Your task to perform on an android device: allow notifications from all sites in the chrome app Image 0: 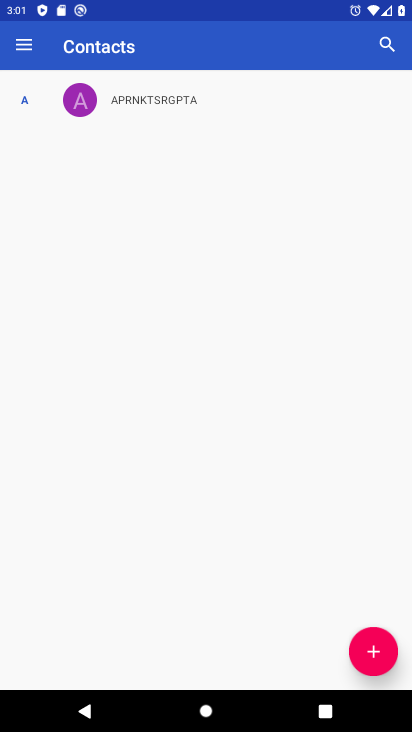
Step 0: press home button
Your task to perform on an android device: allow notifications from all sites in the chrome app Image 1: 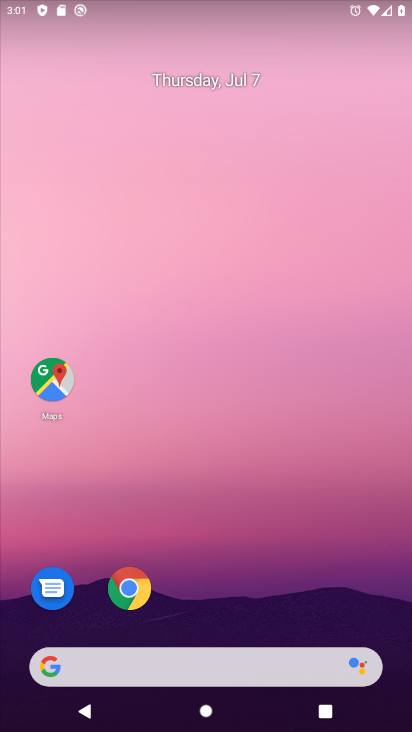
Step 1: click (135, 589)
Your task to perform on an android device: allow notifications from all sites in the chrome app Image 2: 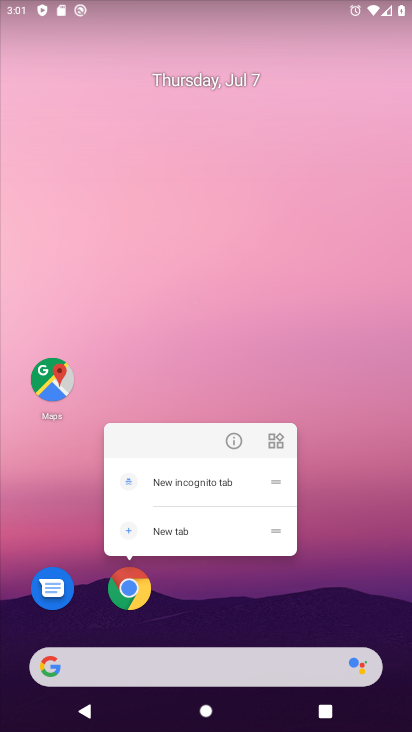
Step 2: click (136, 593)
Your task to perform on an android device: allow notifications from all sites in the chrome app Image 3: 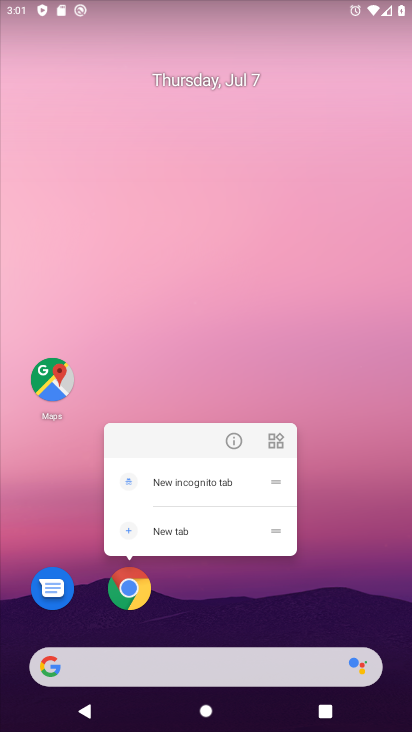
Step 3: click (127, 586)
Your task to perform on an android device: allow notifications from all sites in the chrome app Image 4: 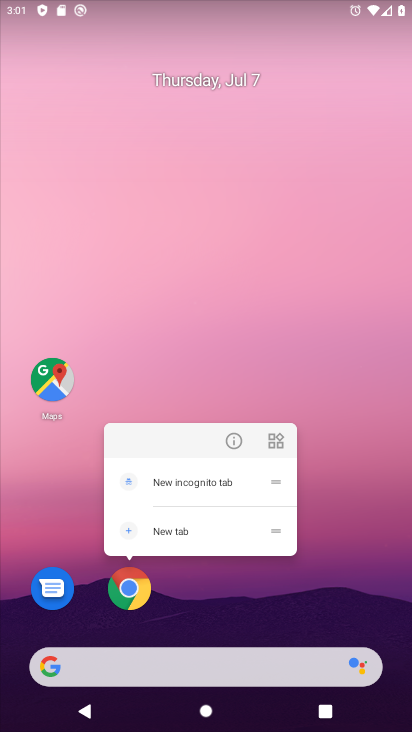
Step 4: click (127, 586)
Your task to perform on an android device: allow notifications from all sites in the chrome app Image 5: 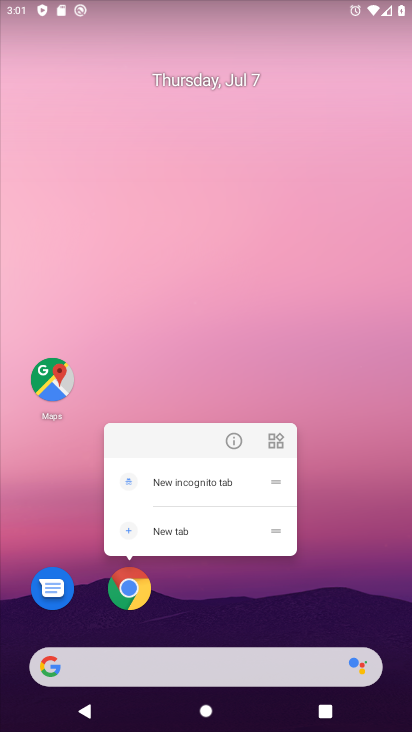
Step 5: click (131, 594)
Your task to perform on an android device: allow notifications from all sites in the chrome app Image 6: 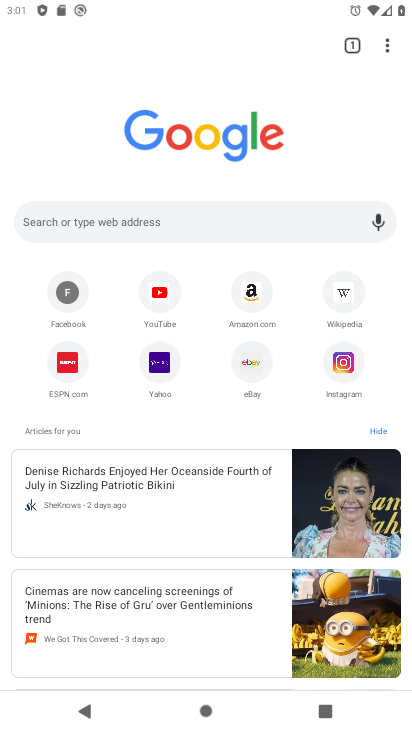
Step 6: click (389, 49)
Your task to perform on an android device: allow notifications from all sites in the chrome app Image 7: 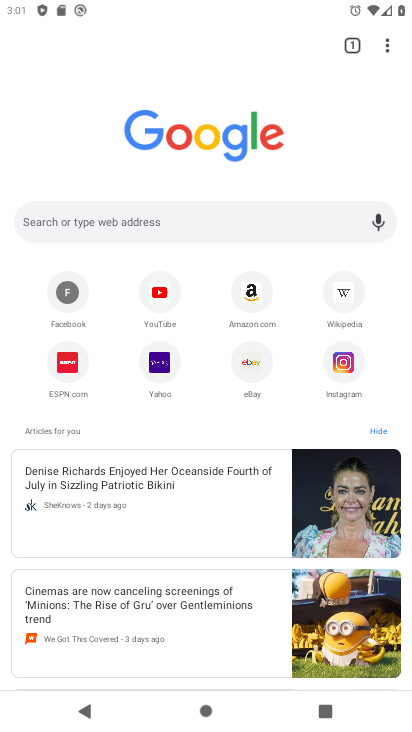
Step 7: click (385, 43)
Your task to perform on an android device: allow notifications from all sites in the chrome app Image 8: 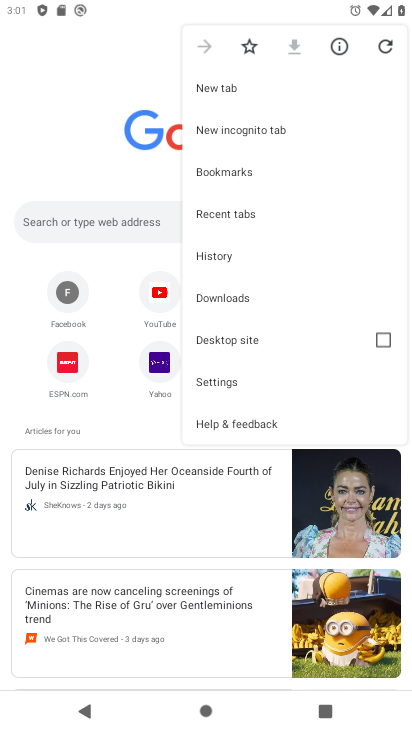
Step 8: click (212, 381)
Your task to perform on an android device: allow notifications from all sites in the chrome app Image 9: 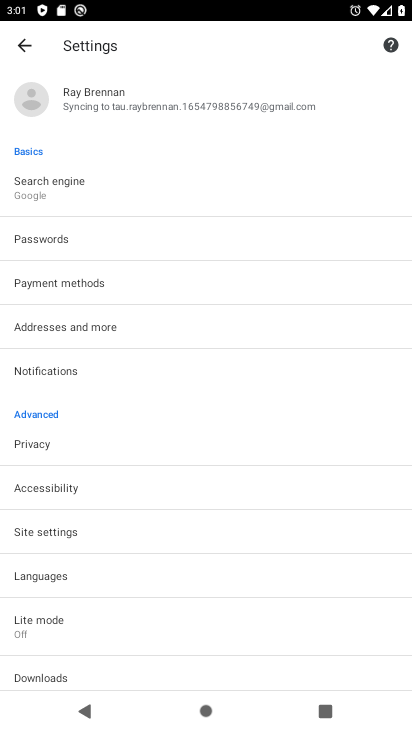
Step 9: click (28, 533)
Your task to perform on an android device: allow notifications from all sites in the chrome app Image 10: 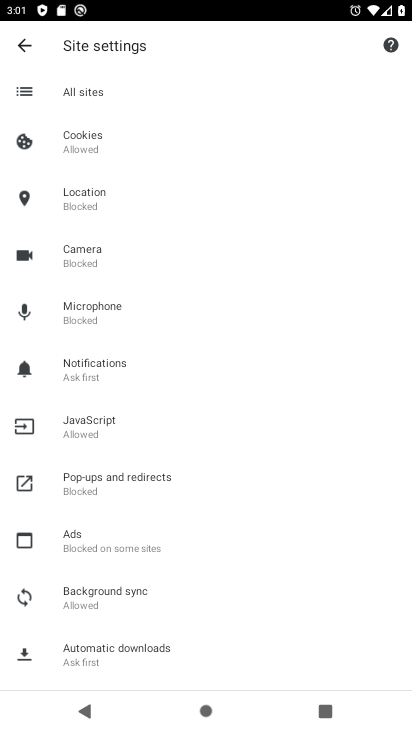
Step 10: click (86, 372)
Your task to perform on an android device: allow notifications from all sites in the chrome app Image 11: 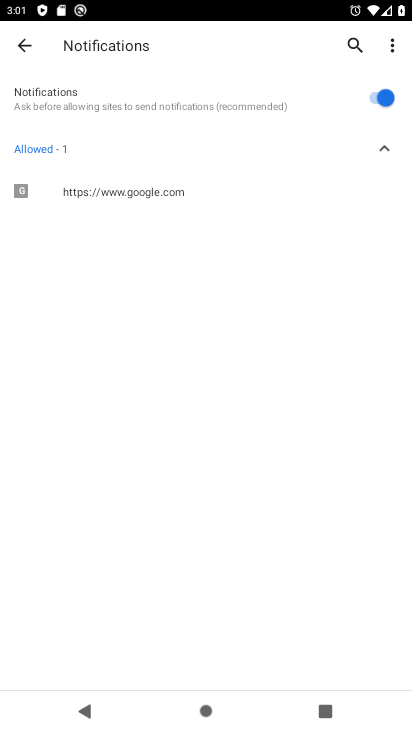
Step 11: task complete